Your task to perform on an android device: change the clock display to digital Image 0: 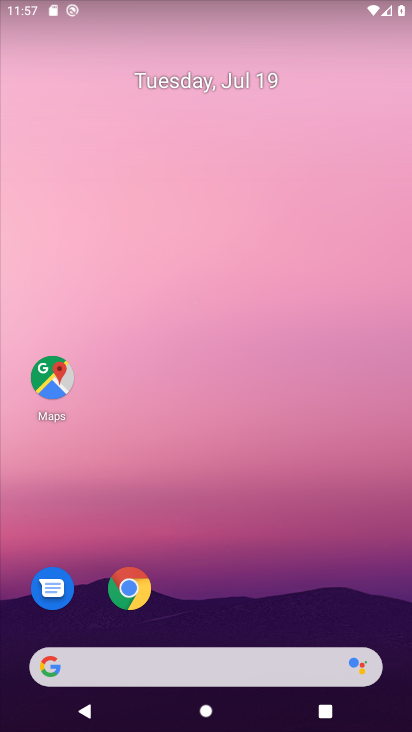
Step 0: drag from (207, 557) to (249, 63)
Your task to perform on an android device: change the clock display to digital Image 1: 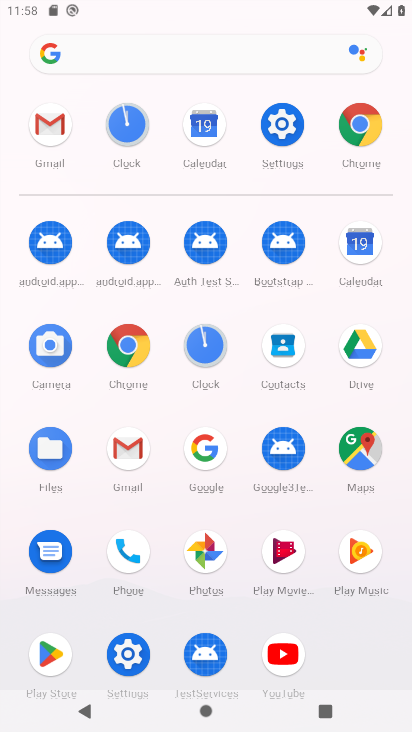
Step 1: click (212, 353)
Your task to perform on an android device: change the clock display to digital Image 2: 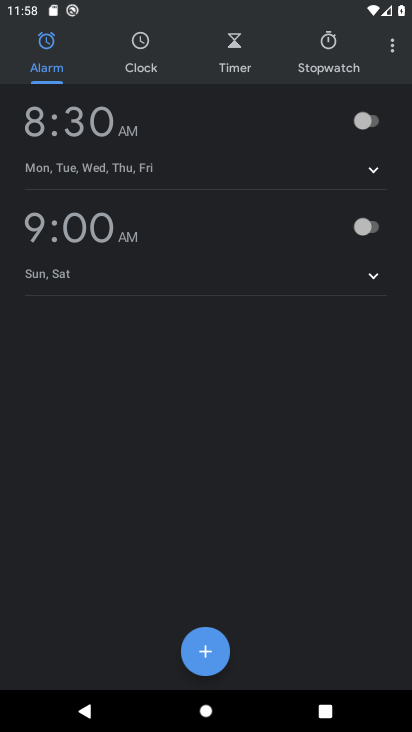
Step 2: click (392, 51)
Your task to perform on an android device: change the clock display to digital Image 3: 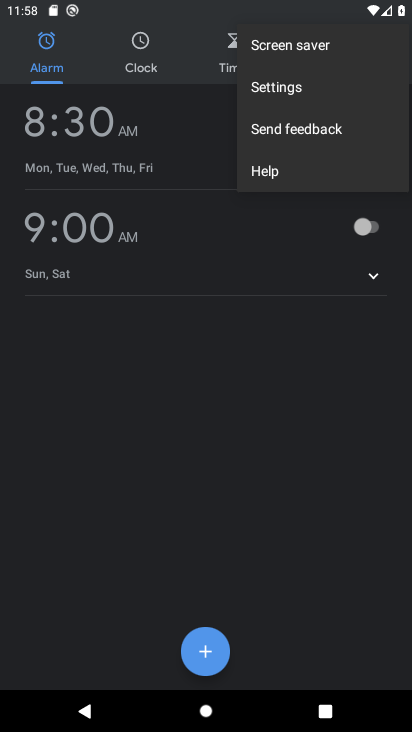
Step 3: click (299, 94)
Your task to perform on an android device: change the clock display to digital Image 4: 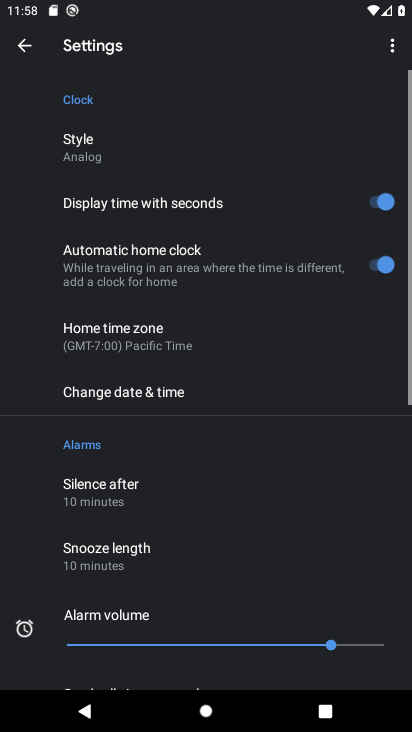
Step 4: click (98, 148)
Your task to perform on an android device: change the clock display to digital Image 5: 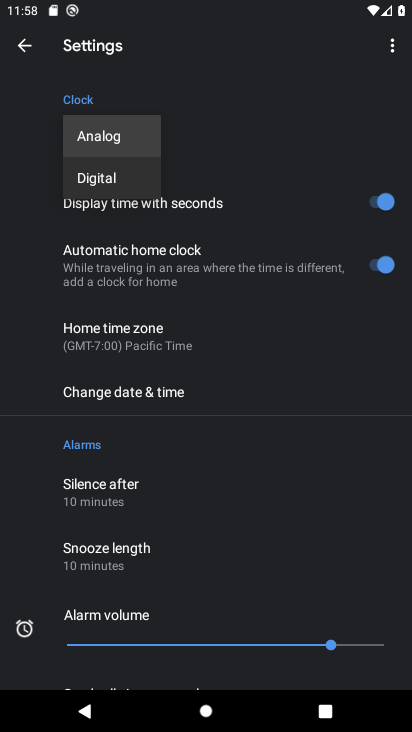
Step 5: click (112, 184)
Your task to perform on an android device: change the clock display to digital Image 6: 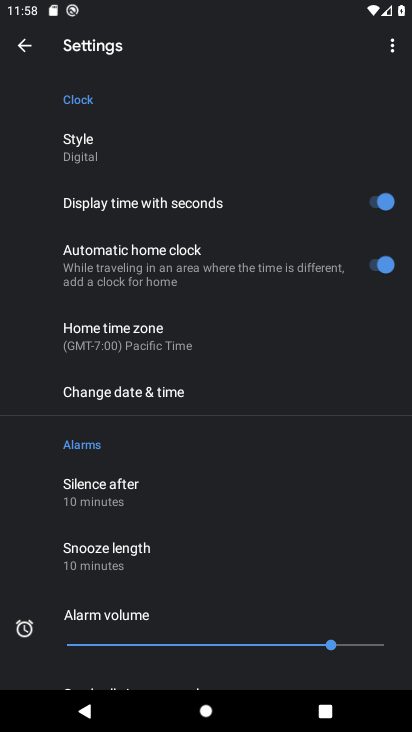
Step 6: task complete